Your task to perform on an android device: allow notifications from all sites in the chrome app Image 0: 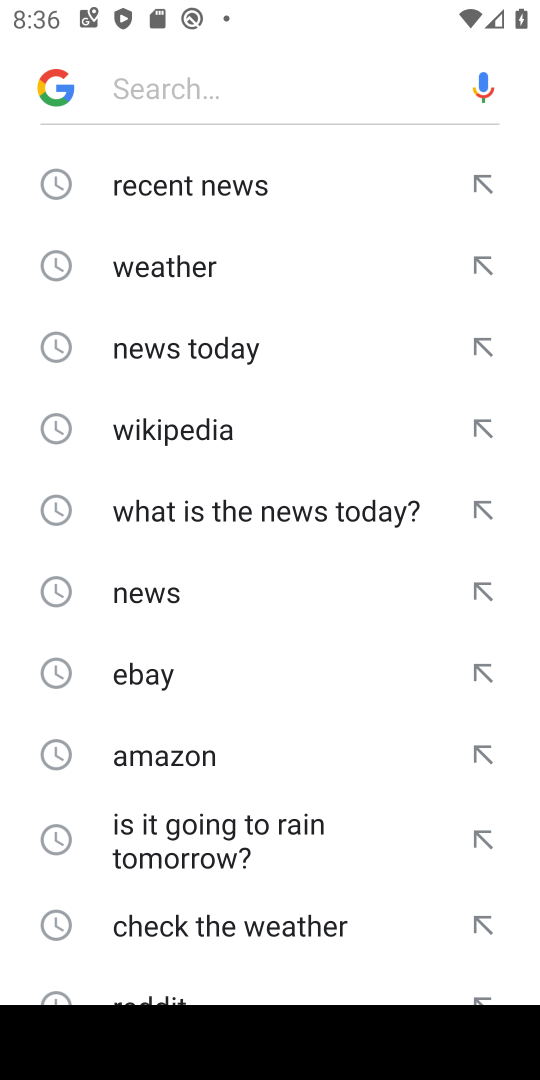
Step 0: press home button
Your task to perform on an android device: allow notifications from all sites in the chrome app Image 1: 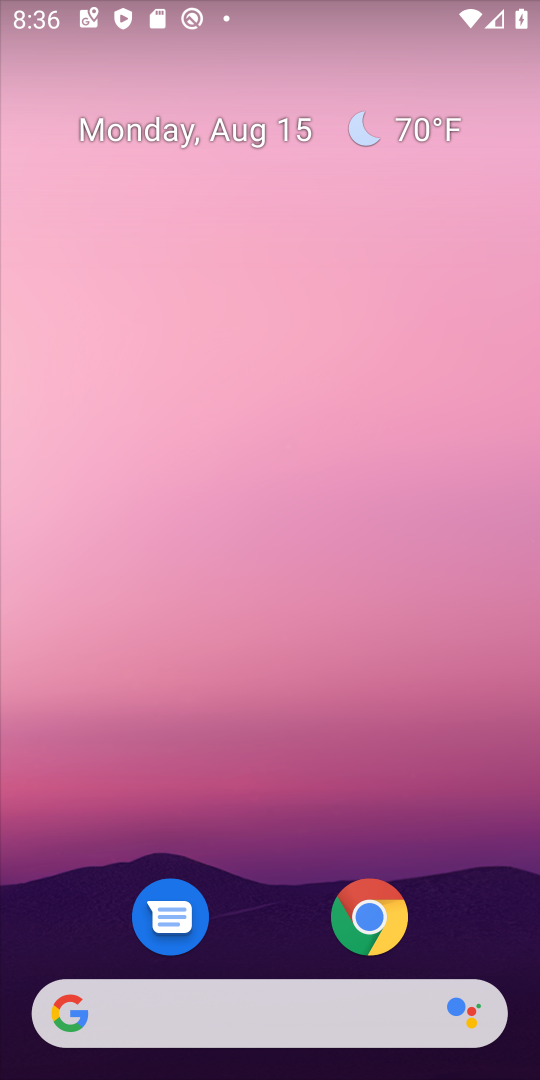
Step 1: click (367, 911)
Your task to perform on an android device: allow notifications from all sites in the chrome app Image 2: 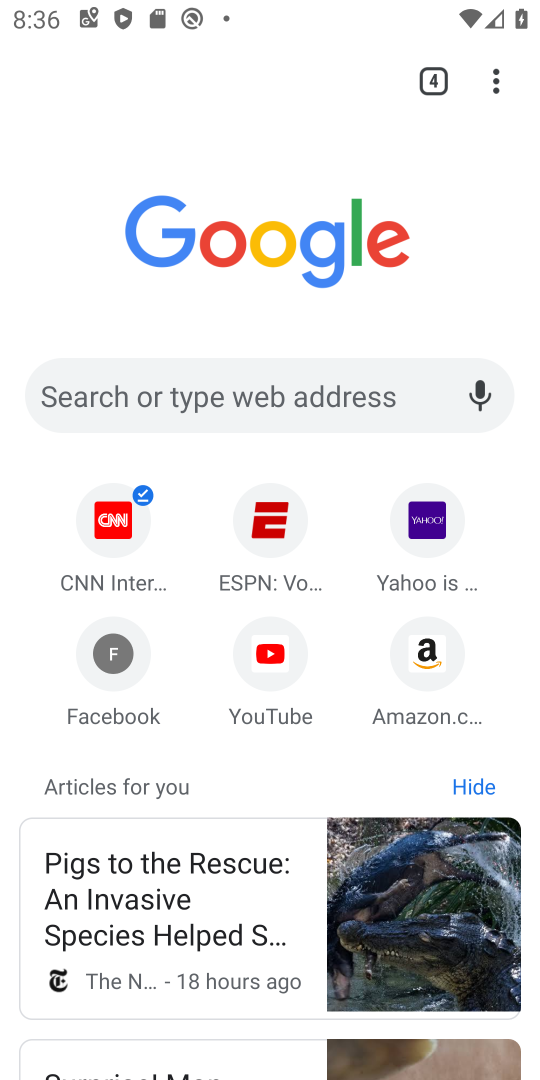
Step 2: click (492, 81)
Your task to perform on an android device: allow notifications from all sites in the chrome app Image 3: 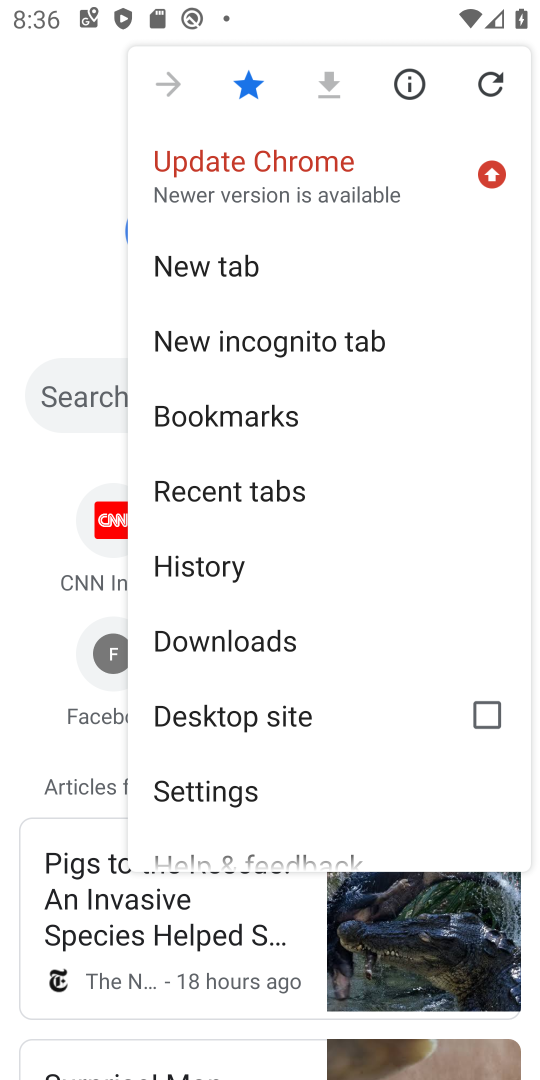
Step 3: click (286, 785)
Your task to perform on an android device: allow notifications from all sites in the chrome app Image 4: 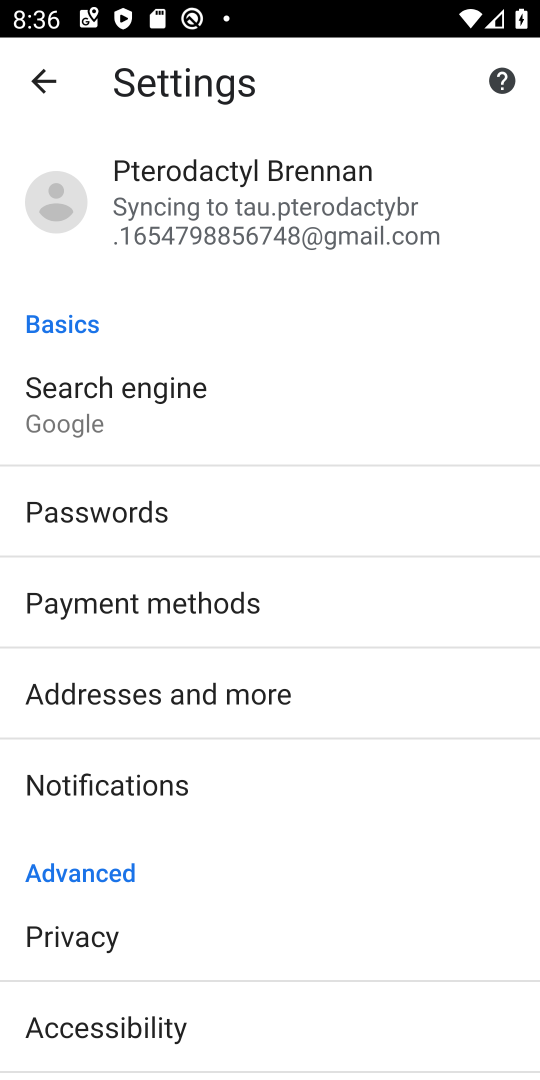
Step 4: click (281, 777)
Your task to perform on an android device: allow notifications from all sites in the chrome app Image 5: 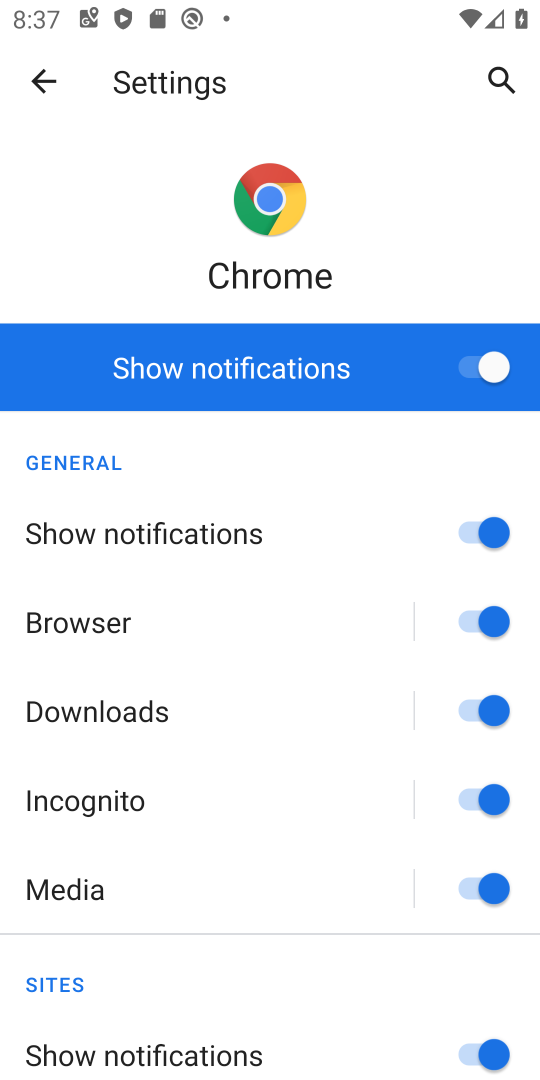
Step 5: task complete